Your task to perform on an android device: Search for pizza restaurants on Maps Image 0: 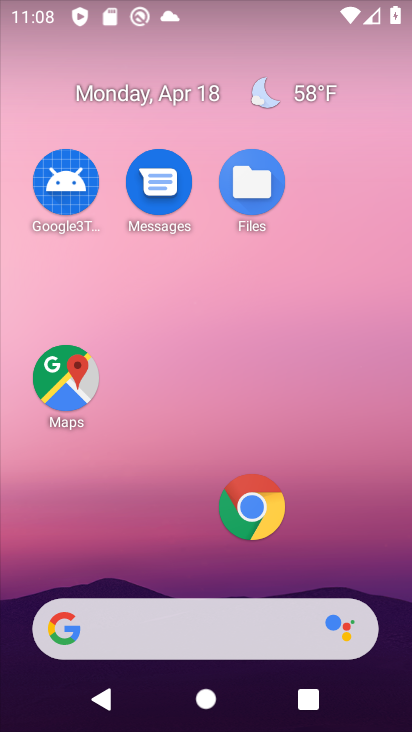
Step 0: click (66, 384)
Your task to perform on an android device: Search for pizza restaurants on Maps Image 1: 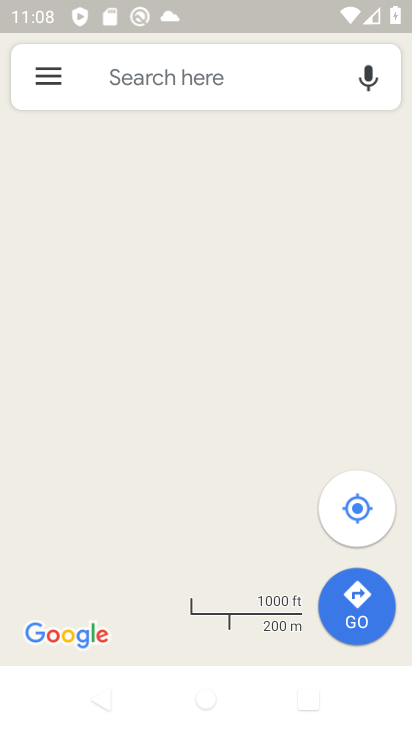
Step 1: click (141, 93)
Your task to perform on an android device: Search for pizza restaurants on Maps Image 2: 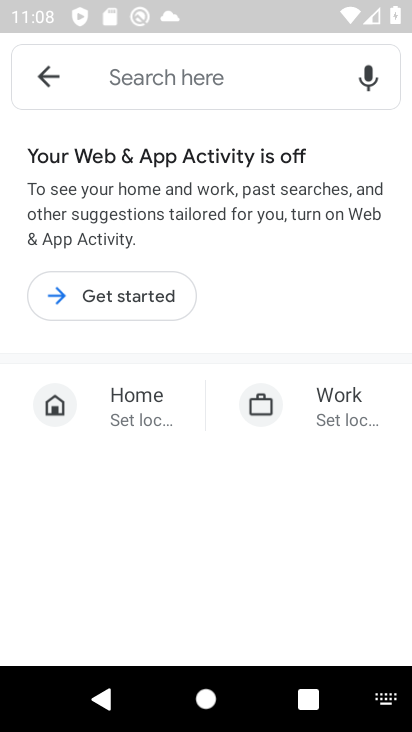
Step 2: click (147, 285)
Your task to perform on an android device: Search for pizza restaurants on Maps Image 3: 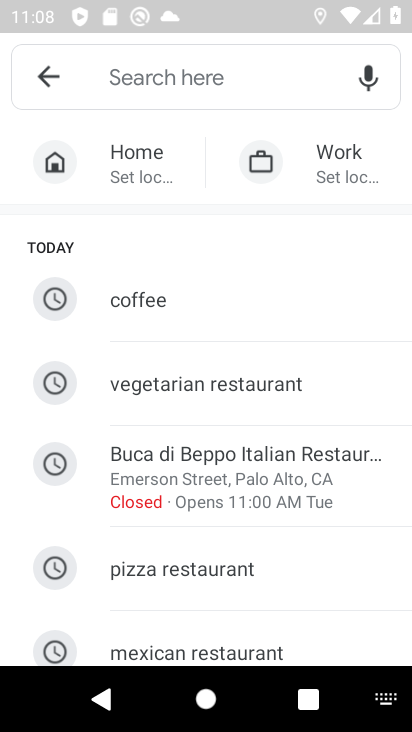
Step 3: drag from (168, 565) to (142, 254)
Your task to perform on an android device: Search for pizza restaurants on Maps Image 4: 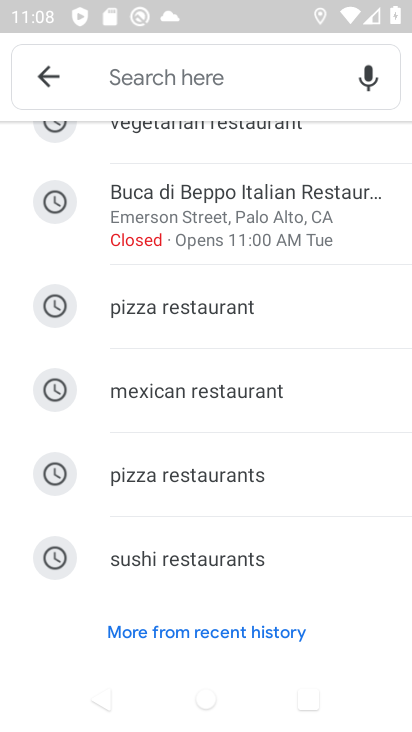
Step 4: click (158, 292)
Your task to perform on an android device: Search for pizza restaurants on Maps Image 5: 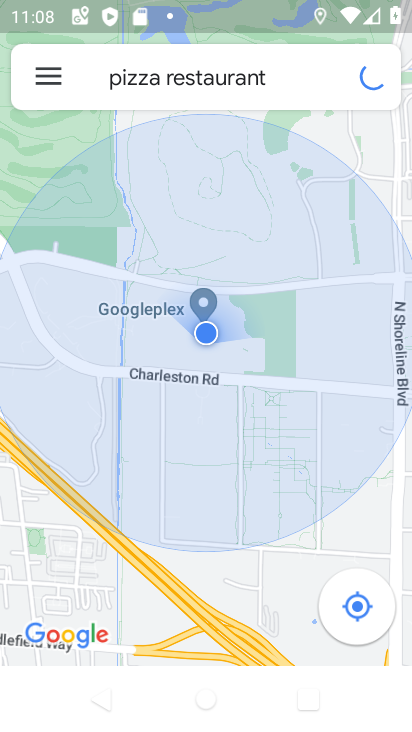
Step 5: task complete